Your task to perform on an android device: allow cookies in the chrome app Image 0: 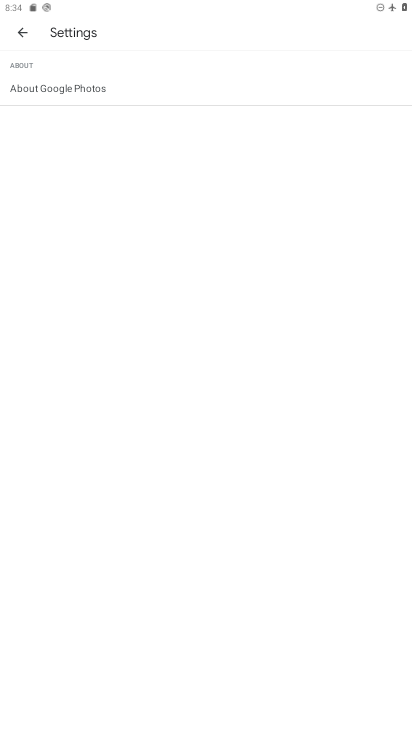
Step 0: press home button
Your task to perform on an android device: allow cookies in the chrome app Image 1: 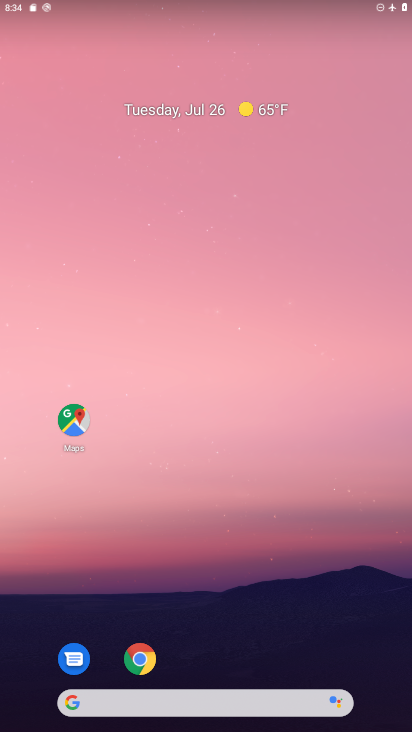
Step 1: click (138, 668)
Your task to perform on an android device: allow cookies in the chrome app Image 2: 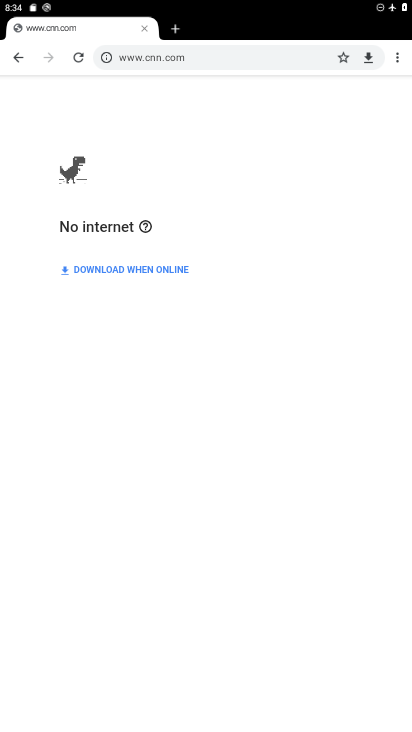
Step 2: click (397, 56)
Your task to perform on an android device: allow cookies in the chrome app Image 3: 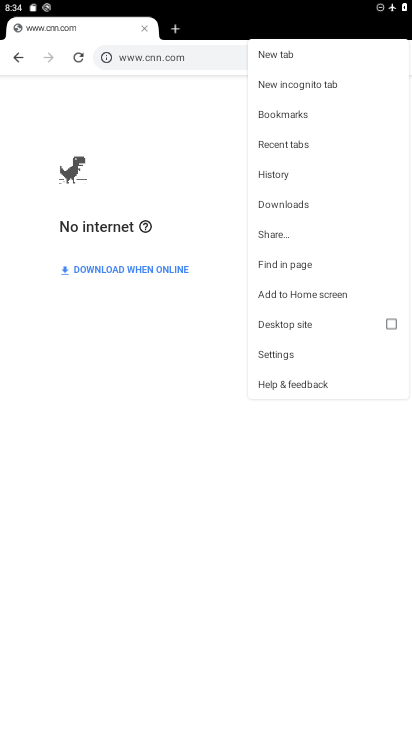
Step 3: click (281, 360)
Your task to perform on an android device: allow cookies in the chrome app Image 4: 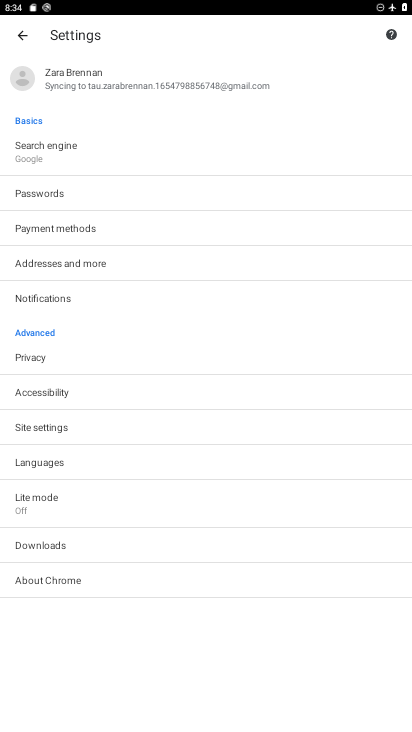
Step 4: click (57, 434)
Your task to perform on an android device: allow cookies in the chrome app Image 5: 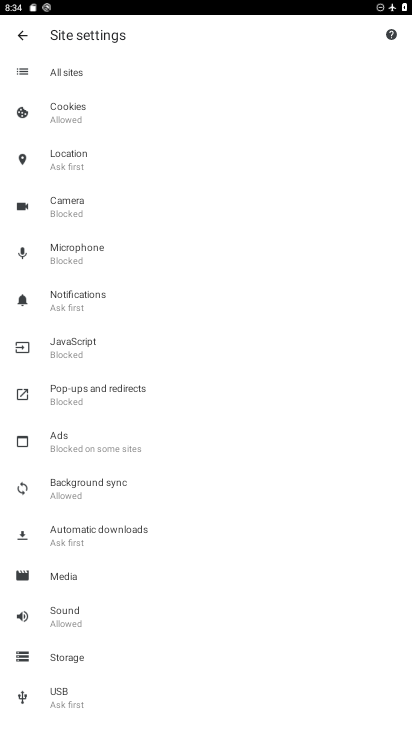
Step 5: click (47, 118)
Your task to perform on an android device: allow cookies in the chrome app Image 6: 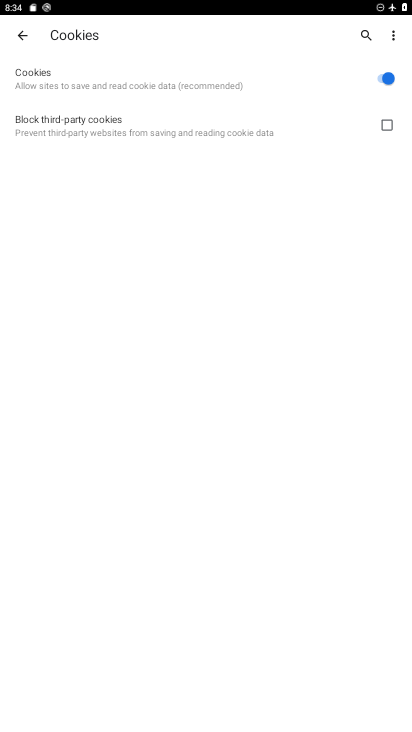
Step 6: task complete